Your task to perform on an android device: change timer sound Image 0: 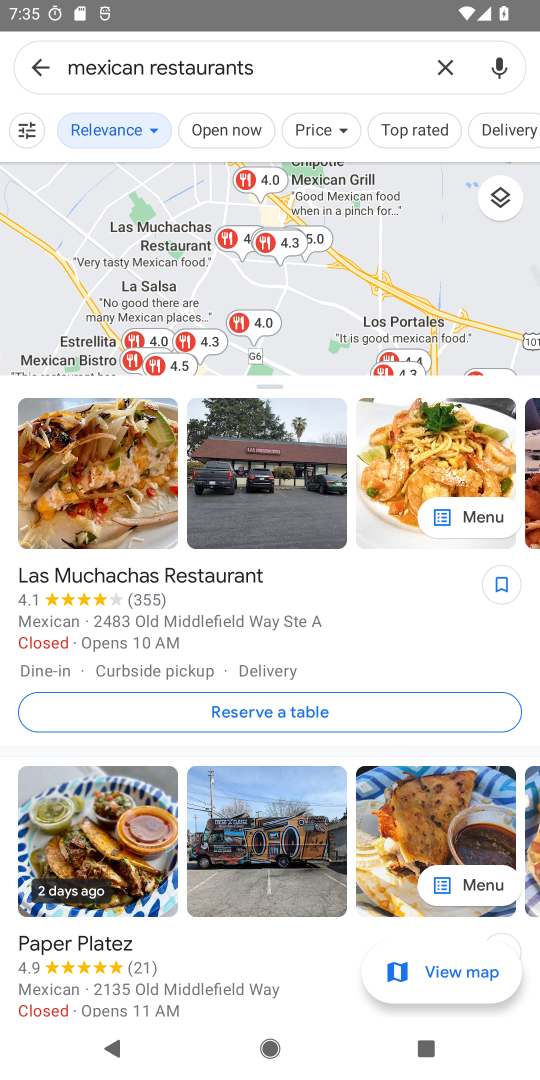
Step 0: press back button
Your task to perform on an android device: change timer sound Image 1: 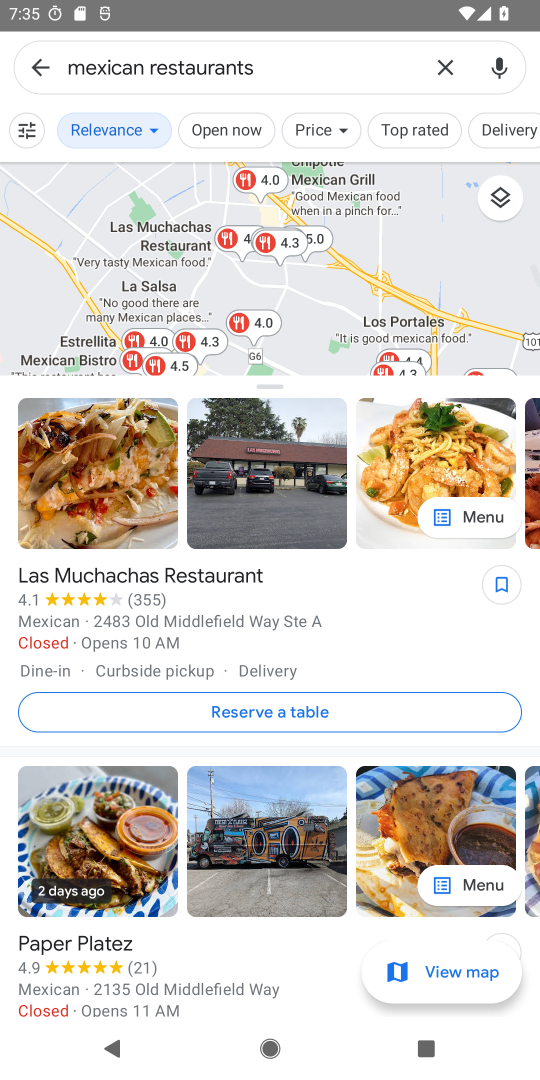
Step 1: press back button
Your task to perform on an android device: change timer sound Image 2: 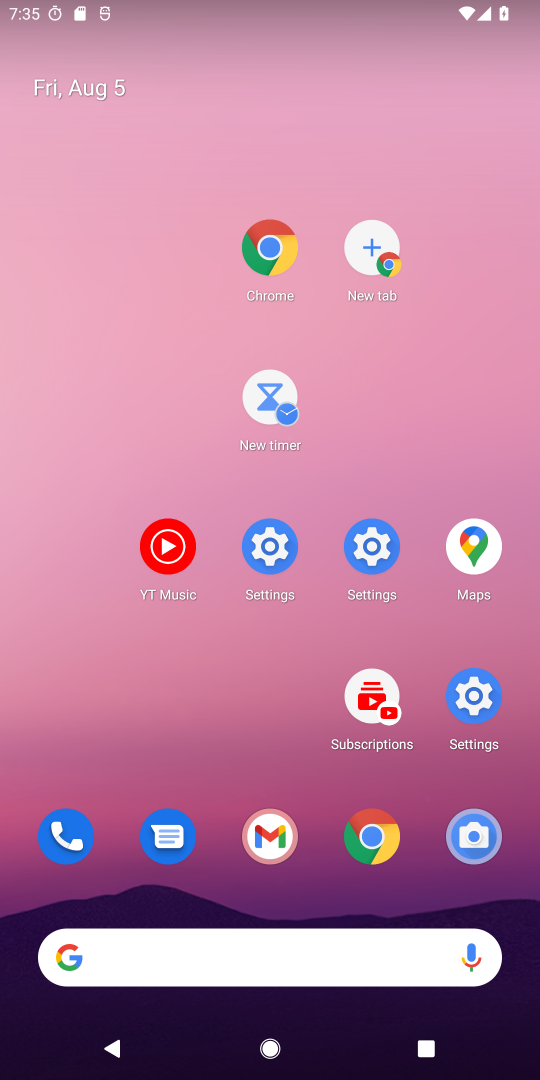
Step 2: drag from (252, 777) to (325, 200)
Your task to perform on an android device: change timer sound Image 3: 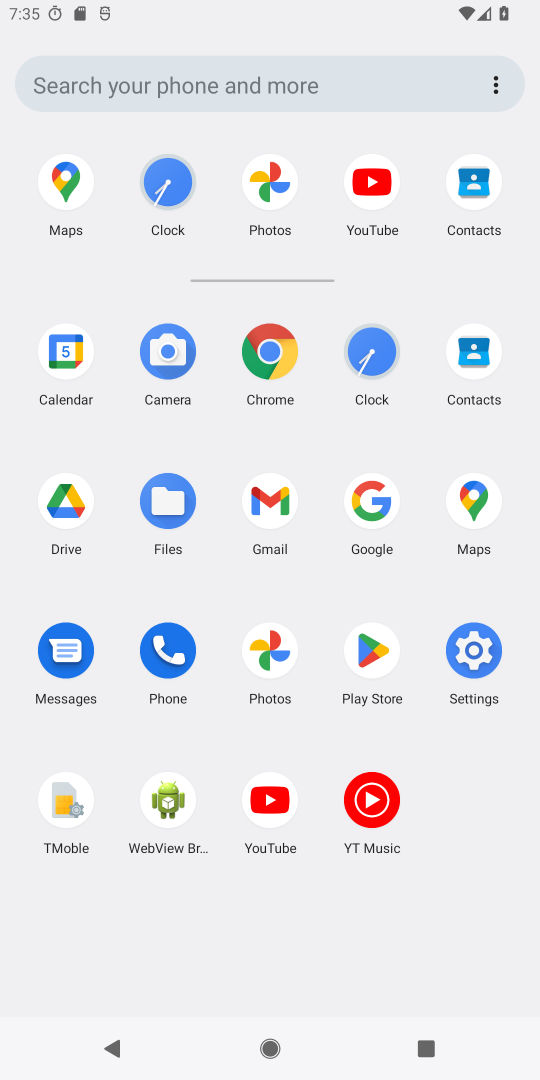
Step 3: click (180, 182)
Your task to perform on an android device: change timer sound Image 4: 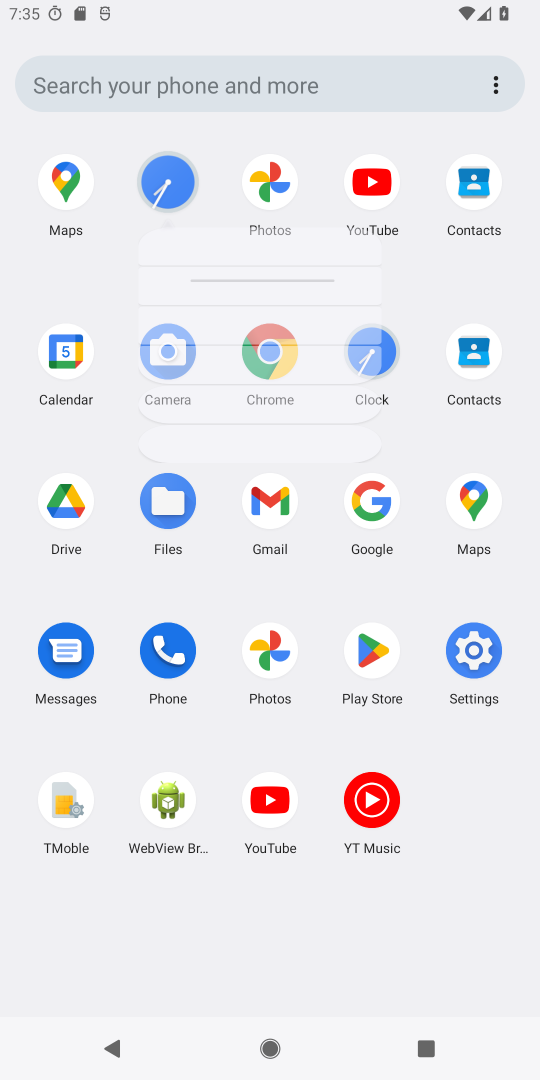
Step 4: click (180, 182)
Your task to perform on an android device: change timer sound Image 5: 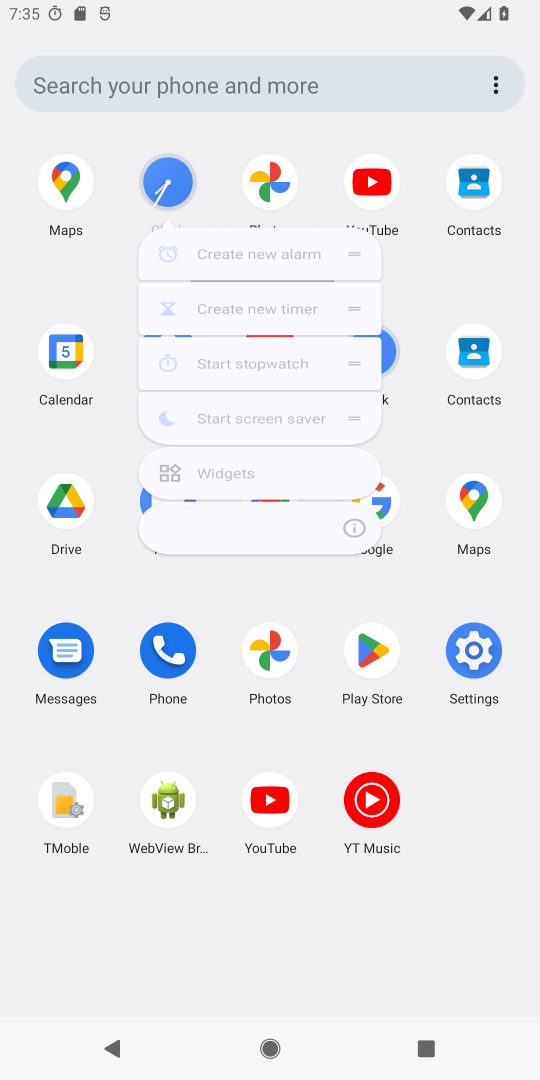
Step 5: click (179, 182)
Your task to perform on an android device: change timer sound Image 6: 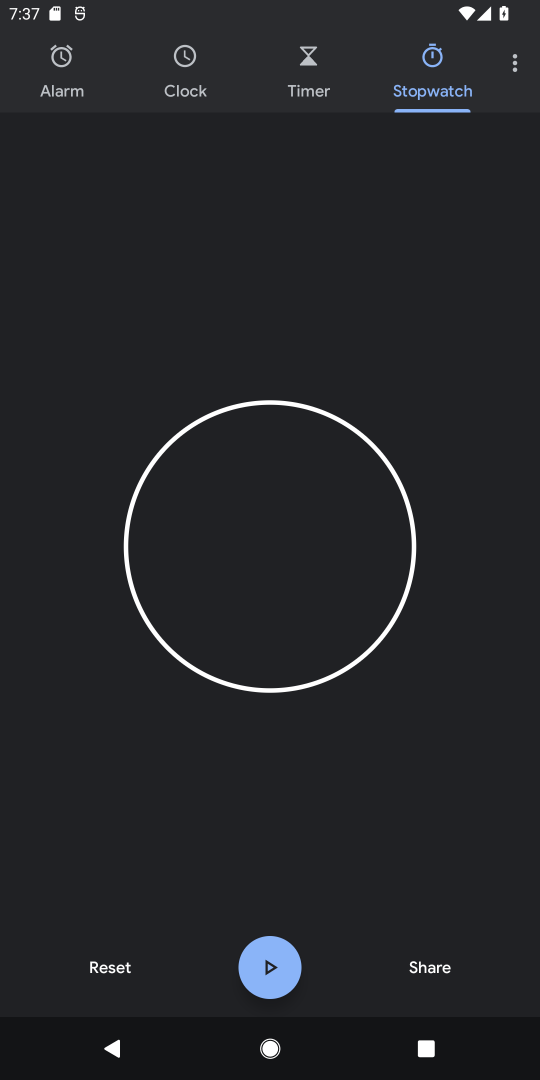
Step 6: click (505, 67)
Your task to perform on an android device: change timer sound Image 7: 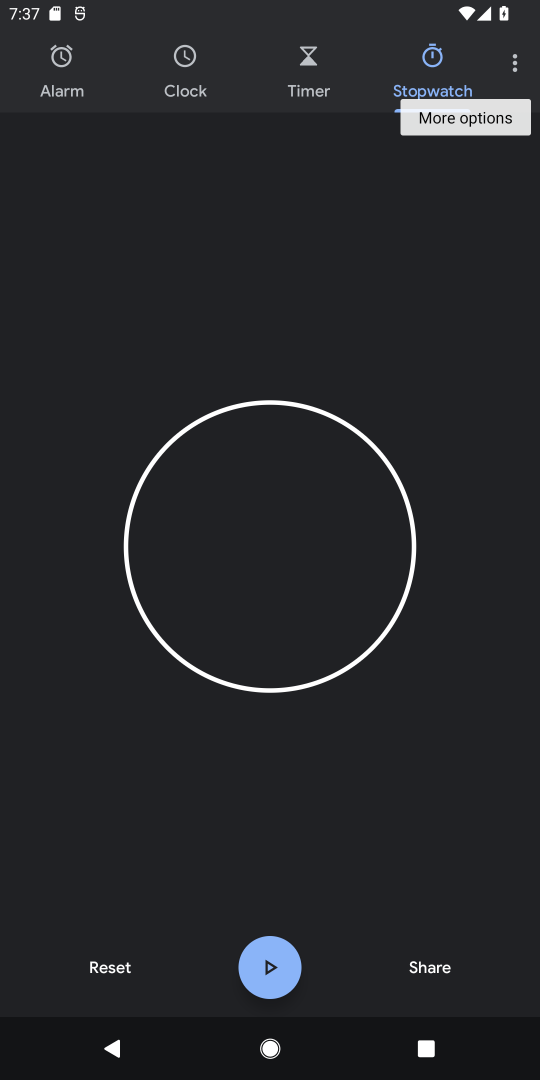
Step 7: click (520, 65)
Your task to perform on an android device: change timer sound Image 8: 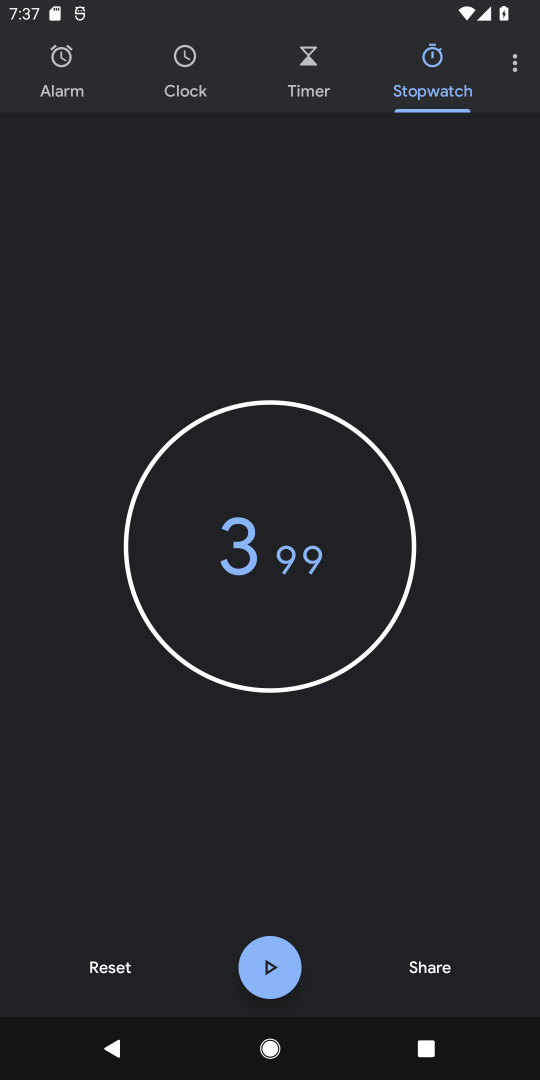
Step 8: click (509, 69)
Your task to perform on an android device: change timer sound Image 9: 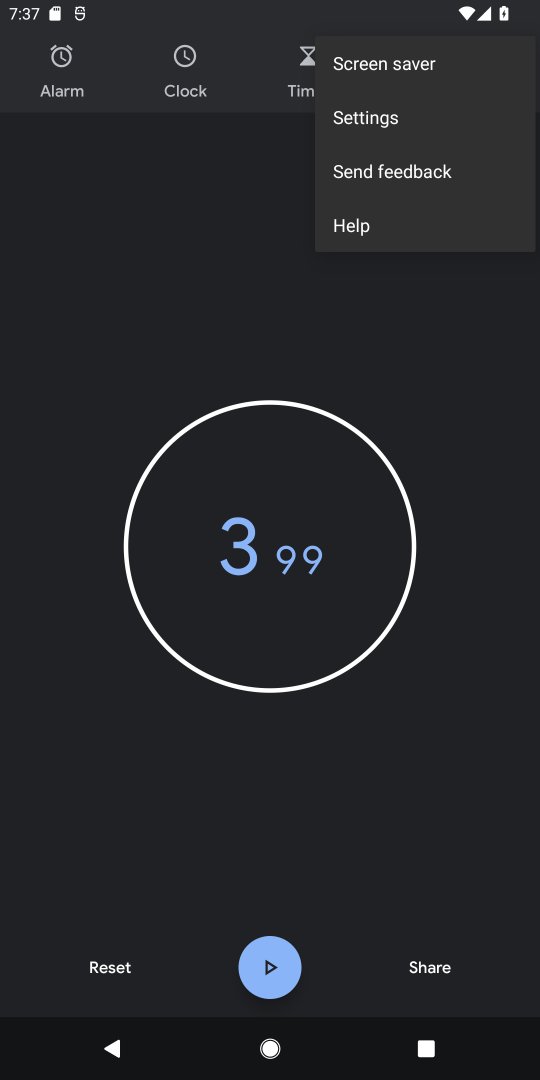
Step 9: click (391, 109)
Your task to perform on an android device: change timer sound Image 10: 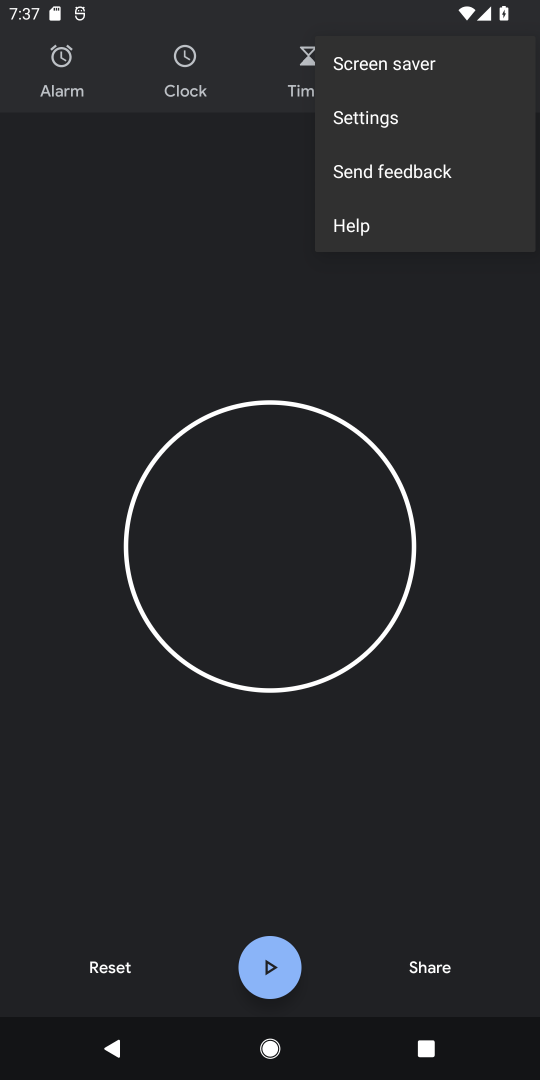
Step 10: click (376, 120)
Your task to perform on an android device: change timer sound Image 11: 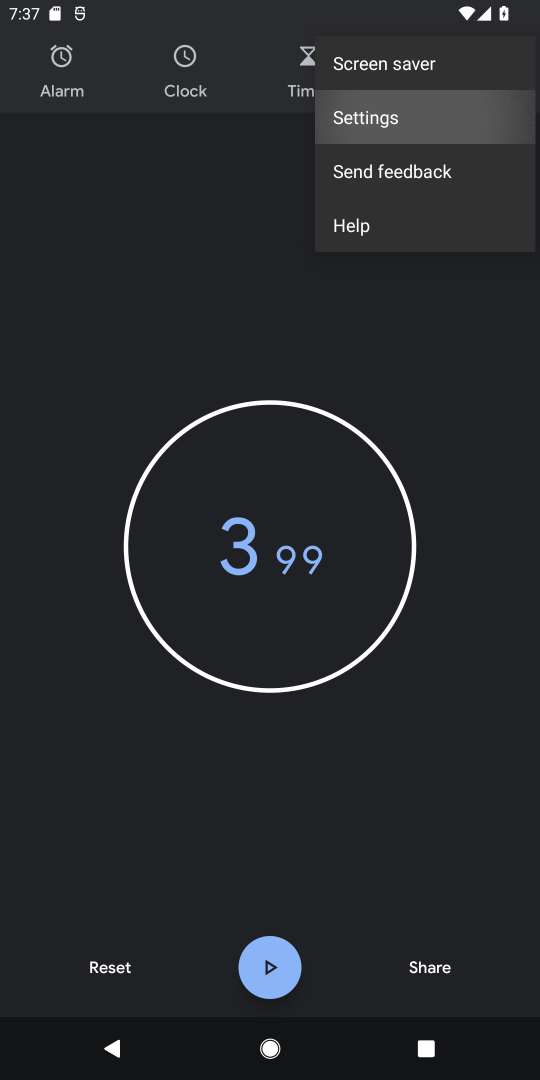
Step 11: click (379, 121)
Your task to perform on an android device: change timer sound Image 12: 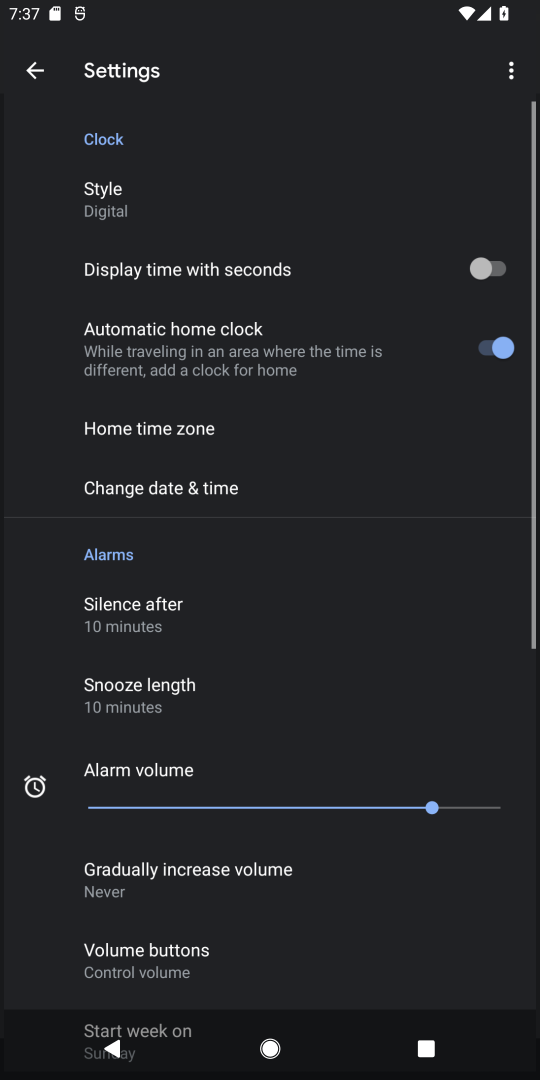
Step 12: click (383, 124)
Your task to perform on an android device: change timer sound Image 13: 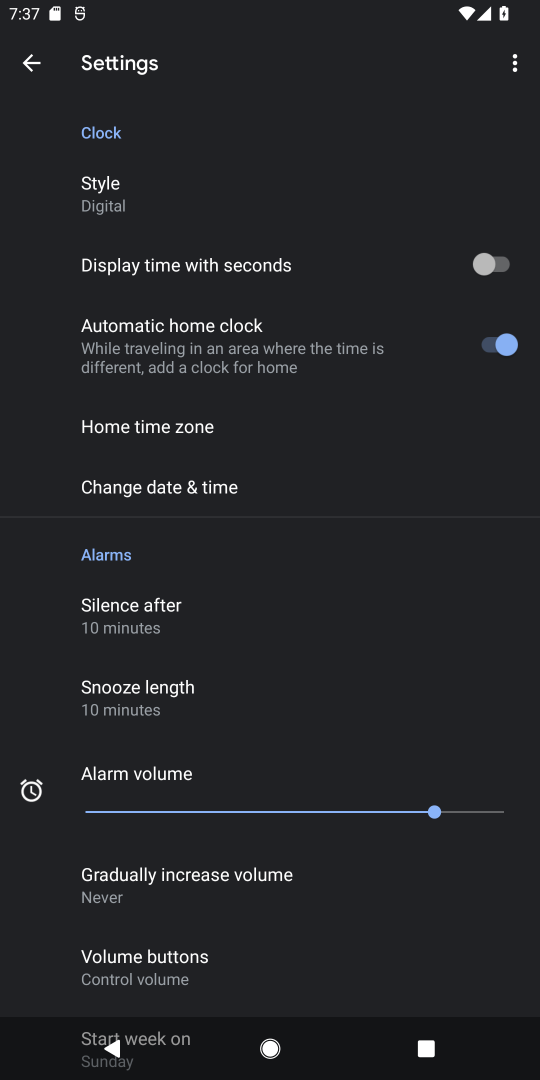
Step 13: drag from (199, 906) to (106, 164)
Your task to perform on an android device: change timer sound Image 14: 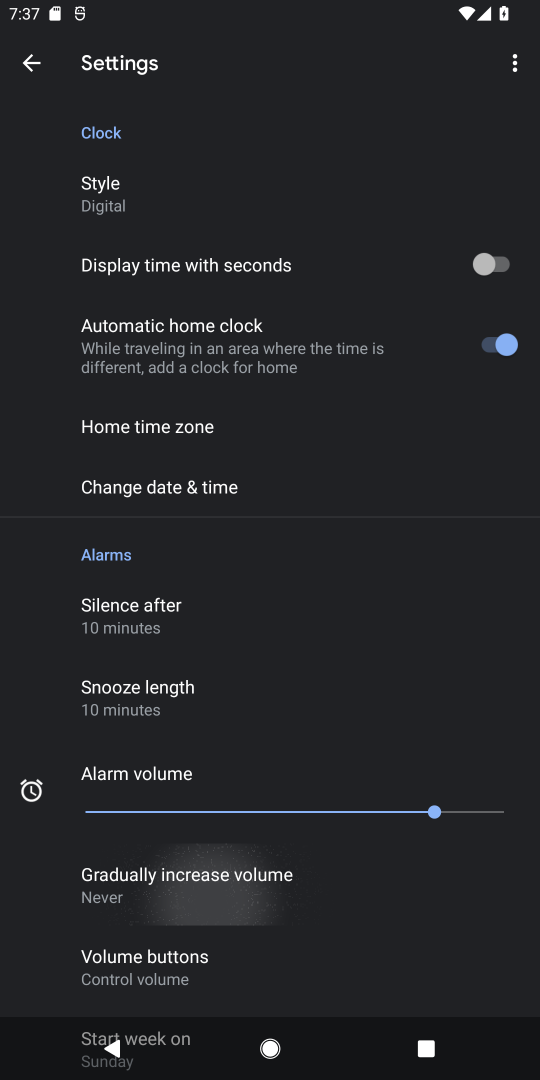
Step 14: drag from (297, 618) to (310, 228)
Your task to perform on an android device: change timer sound Image 15: 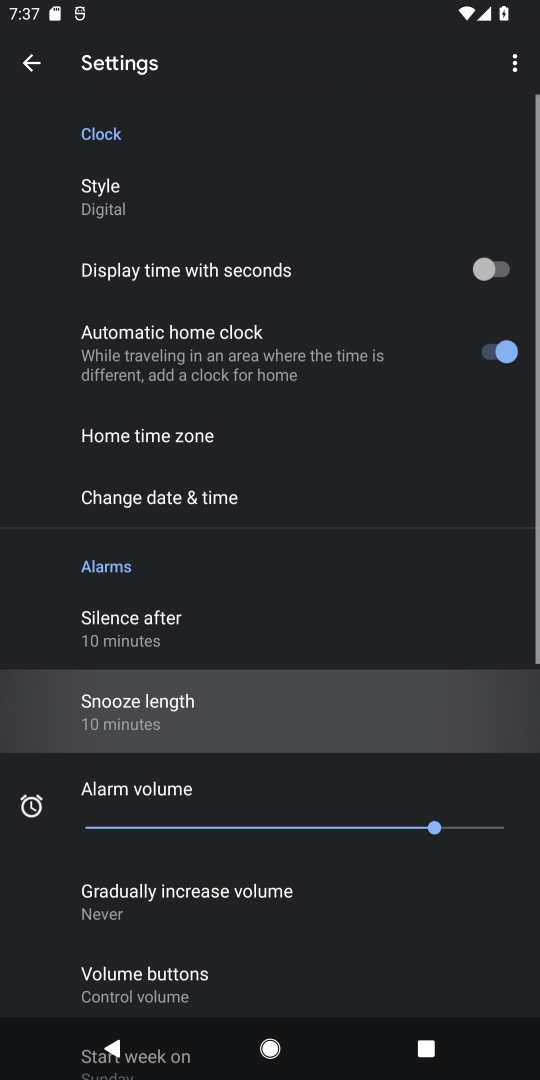
Step 15: click (323, 469)
Your task to perform on an android device: change timer sound Image 16: 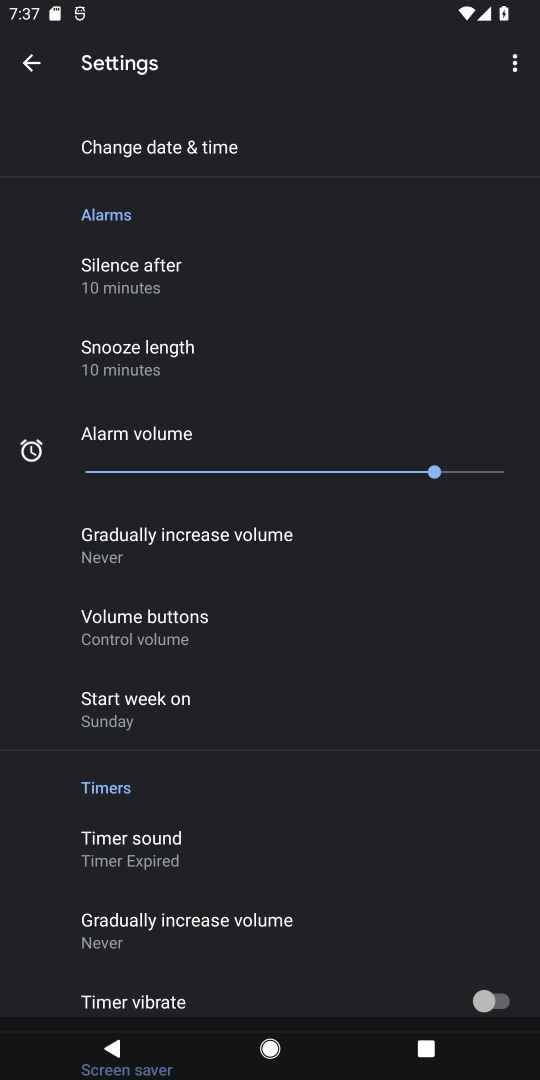
Step 16: click (152, 850)
Your task to perform on an android device: change timer sound Image 17: 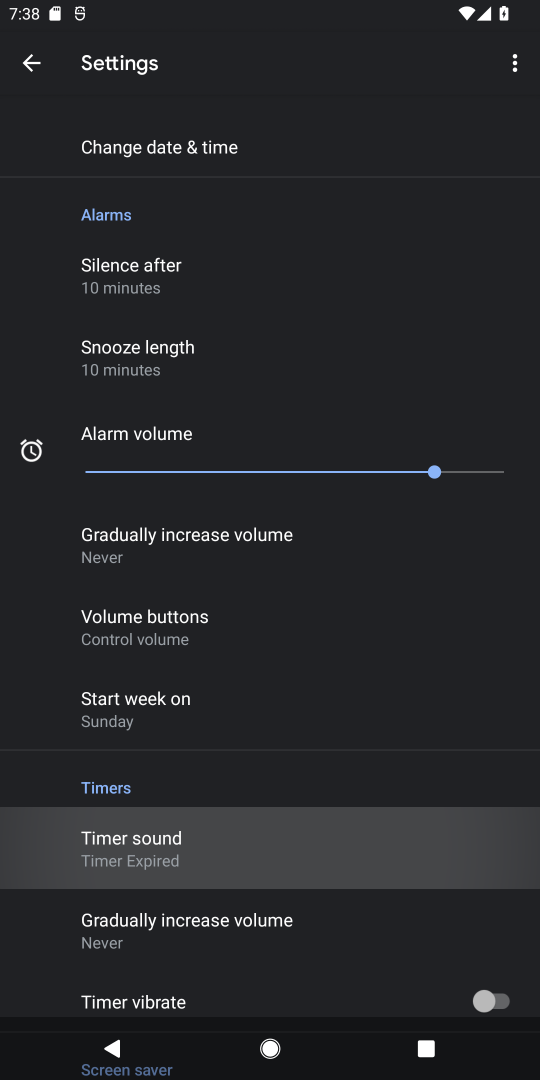
Step 17: click (152, 850)
Your task to perform on an android device: change timer sound Image 18: 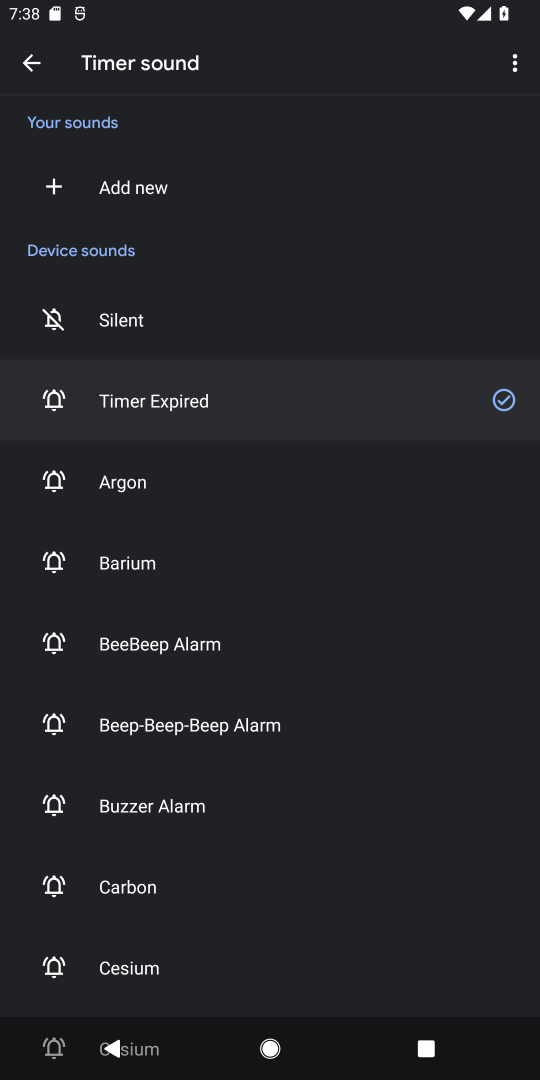
Step 18: click (59, 718)
Your task to perform on an android device: change timer sound Image 19: 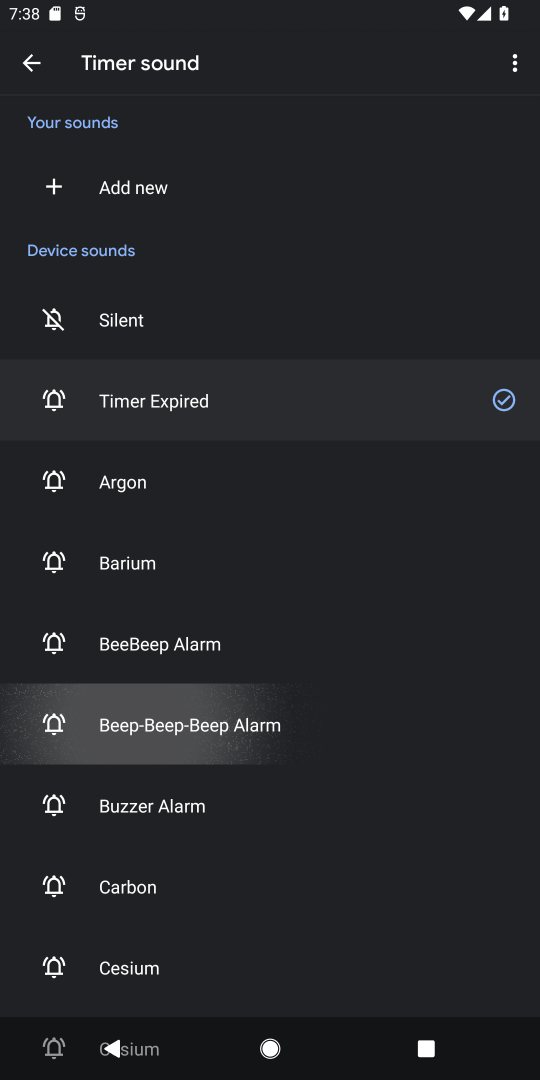
Step 19: click (57, 716)
Your task to perform on an android device: change timer sound Image 20: 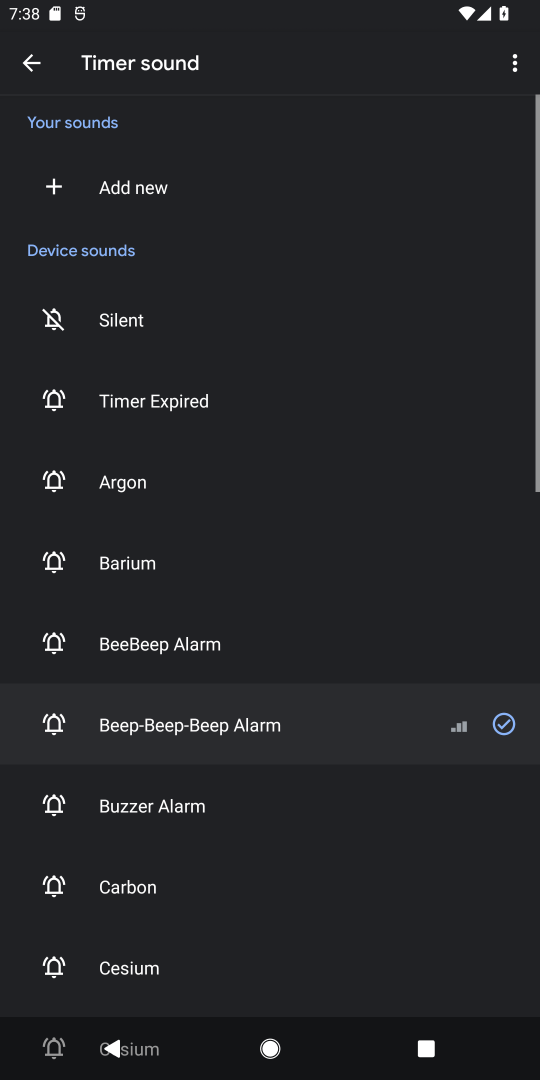
Step 20: task complete